Your task to perform on an android device: open the mobile data screen to see how much data has been used Image 0: 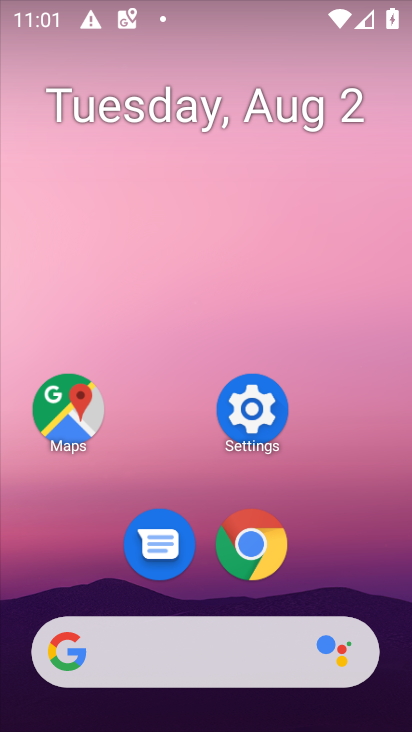
Step 0: press home button
Your task to perform on an android device: open the mobile data screen to see how much data has been used Image 1: 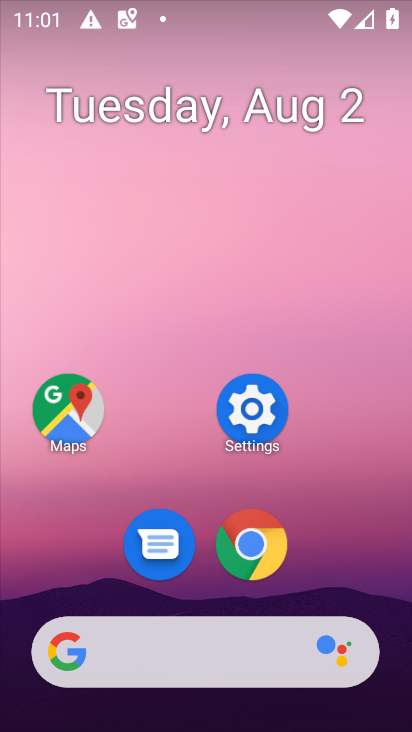
Step 1: click (261, 412)
Your task to perform on an android device: open the mobile data screen to see how much data has been used Image 2: 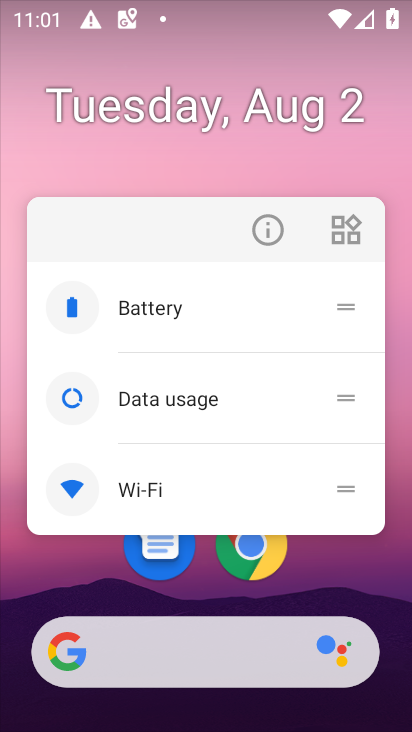
Step 2: click (380, 566)
Your task to perform on an android device: open the mobile data screen to see how much data has been used Image 3: 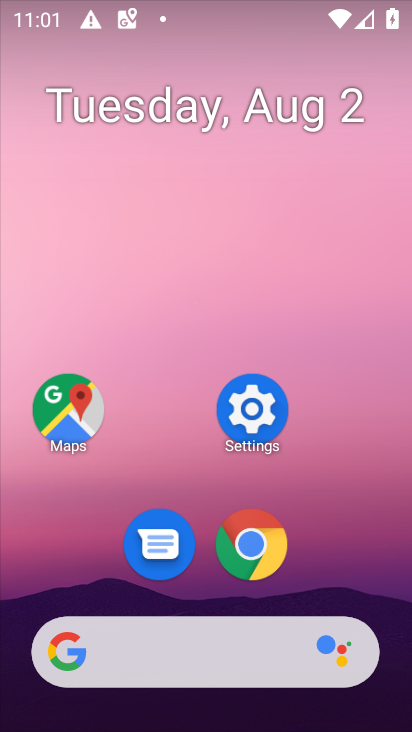
Step 3: click (245, 402)
Your task to perform on an android device: open the mobile data screen to see how much data has been used Image 4: 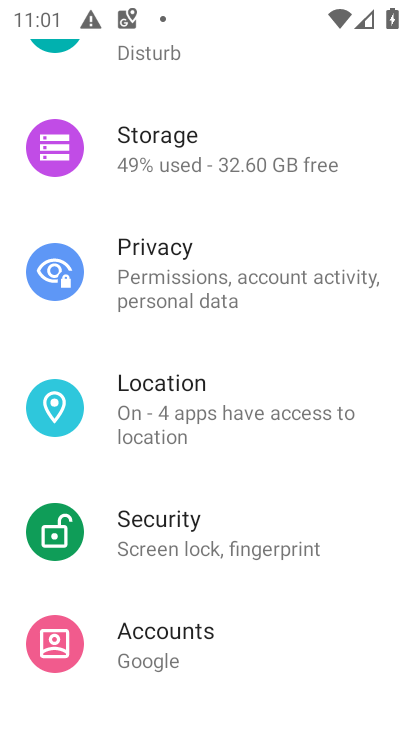
Step 4: drag from (291, 120) to (245, 633)
Your task to perform on an android device: open the mobile data screen to see how much data has been used Image 5: 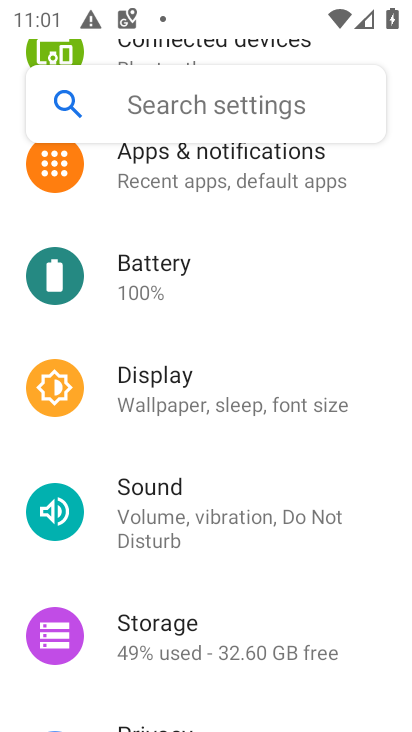
Step 5: drag from (295, 422) to (290, 651)
Your task to perform on an android device: open the mobile data screen to see how much data has been used Image 6: 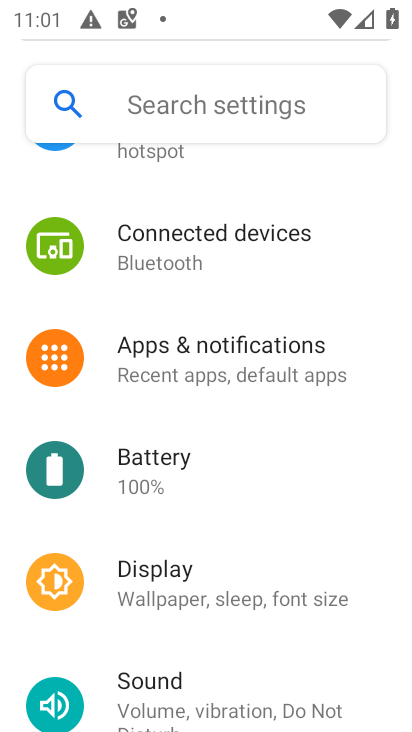
Step 6: drag from (289, 258) to (314, 645)
Your task to perform on an android device: open the mobile data screen to see how much data has been used Image 7: 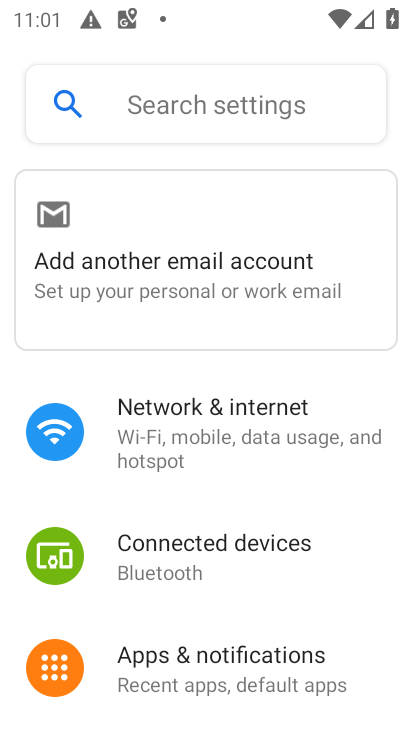
Step 7: click (213, 406)
Your task to perform on an android device: open the mobile data screen to see how much data has been used Image 8: 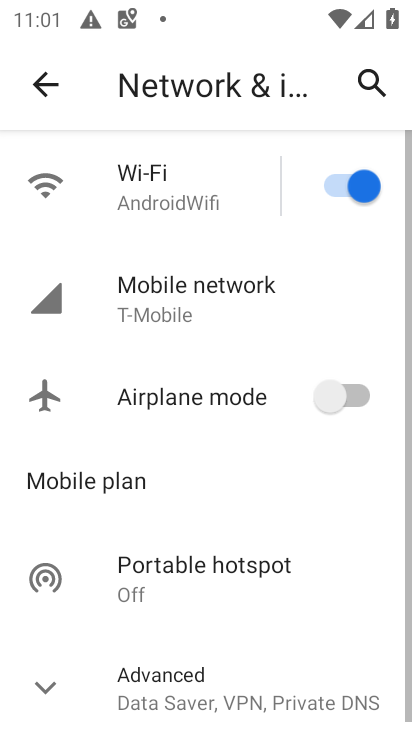
Step 8: click (171, 304)
Your task to perform on an android device: open the mobile data screen to see how much data has been used Image 9: 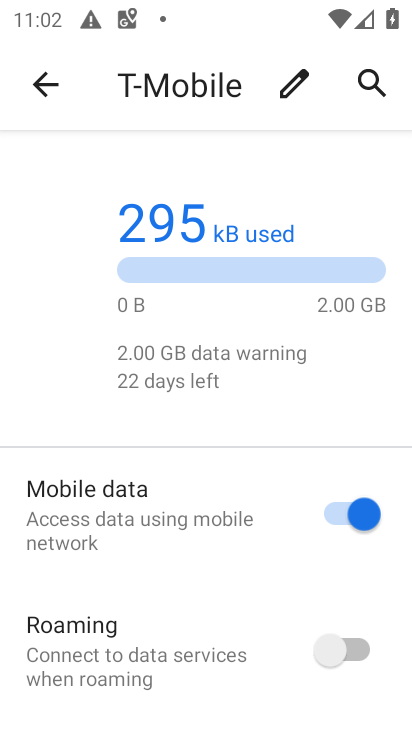
Step 9: task complete